Your task to perform on an android device: Open Google Chrome and open the bookmarks view Image 0: 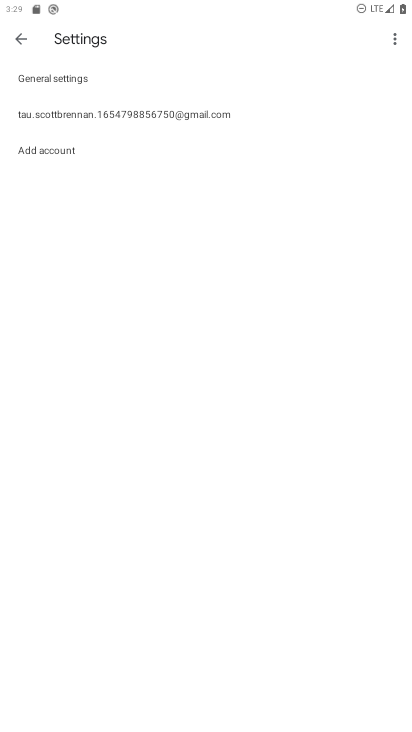
Step 0: press home button
Your task to perform on an android device: Open Google Chrome and open the bookmarks view Image 1: 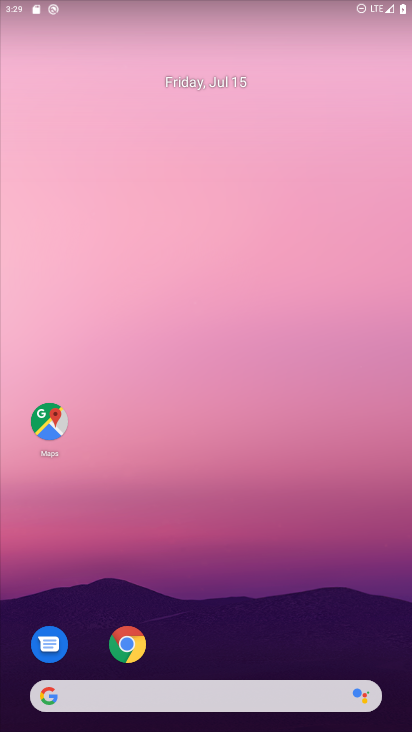
Step 1: drag from (19, 612) to (224, 164)
Your task to perform on an android device: Open Google Chrome and open the bookmarks view Image 2: 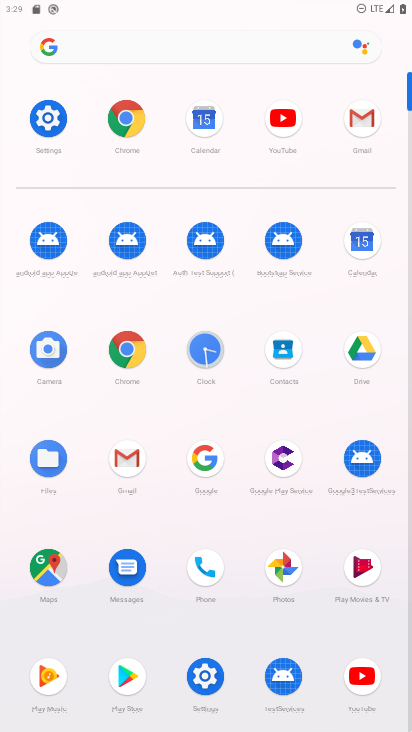
Step 2: click (115, 113)
Your task to perform on an android device: Open Google Chrome and open the bookmarks view Image 3: 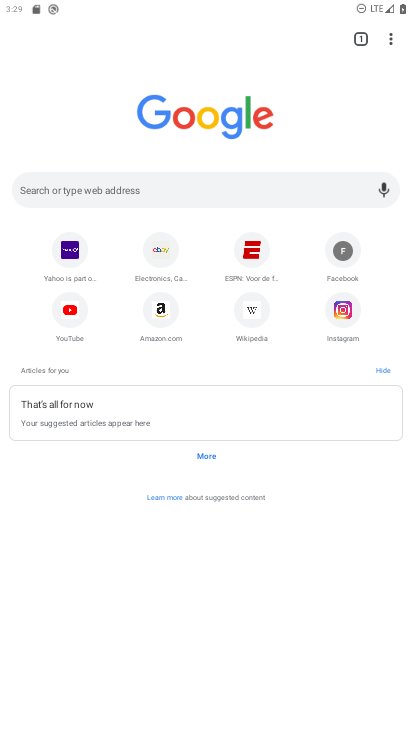
Step 3: click (391, 39)
Your task to perform on an android device: Open Google Chrome and open the bookmarks view Image 4: 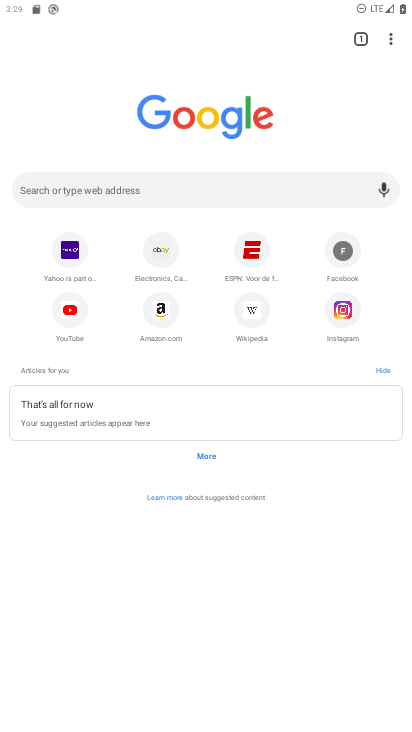
Step 4: click (390, 33)
Your task to perform on an android device: Open Google Chrome and open the bookmarks view Image 5: 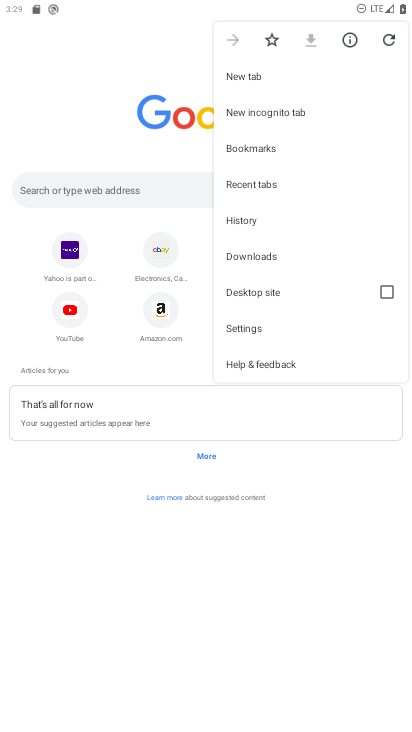
Step 5: click (271, 158)
Your task to perform on an android device: Open Google Chrome and open the bookmarks view Image 6: 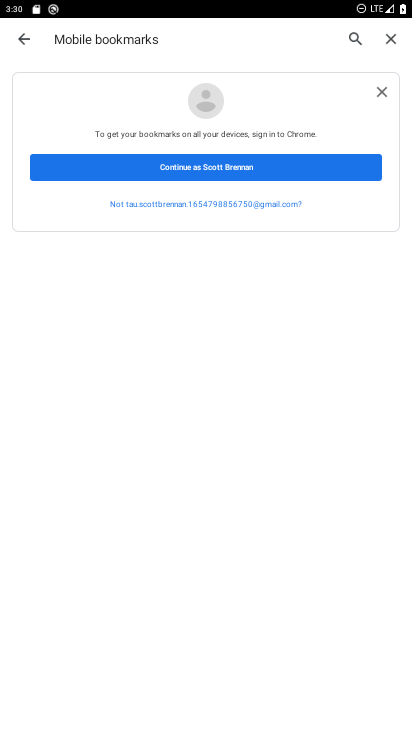
Step 6: task complete